Your task to perform on an android device: What's the weather today? Image 0: 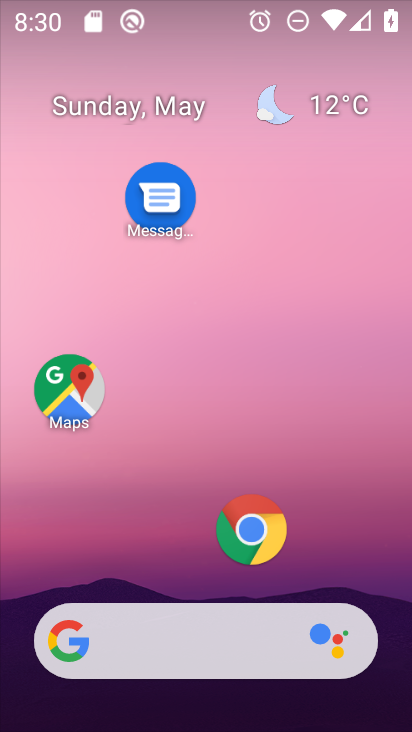
Step 0: drag from (195, 586) to (256, 99)
Your task to perform on an android device: What's the weather today? Image 1: 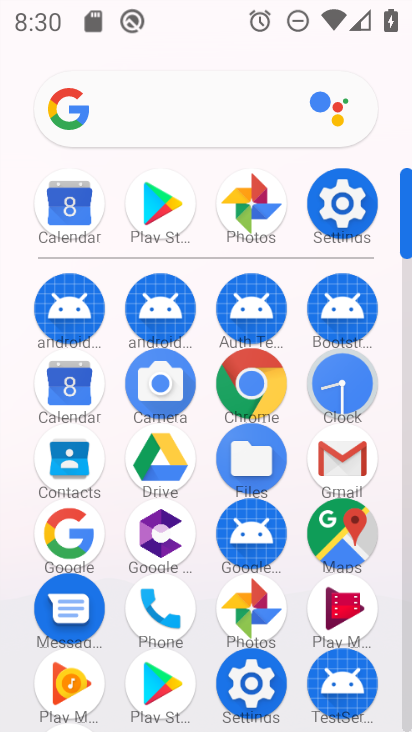
Step 1: press home button
Your task to perform on an android device: What's the weather today? Image 2: 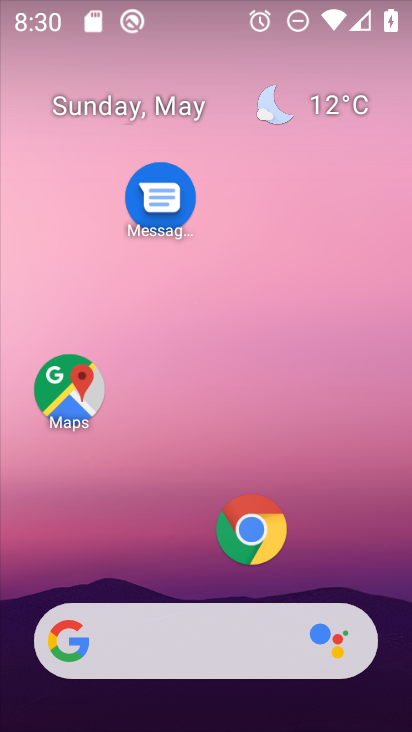
Step 2: click (314, 103)
Your task to perform on an android device: What's the weather today? Image 3: 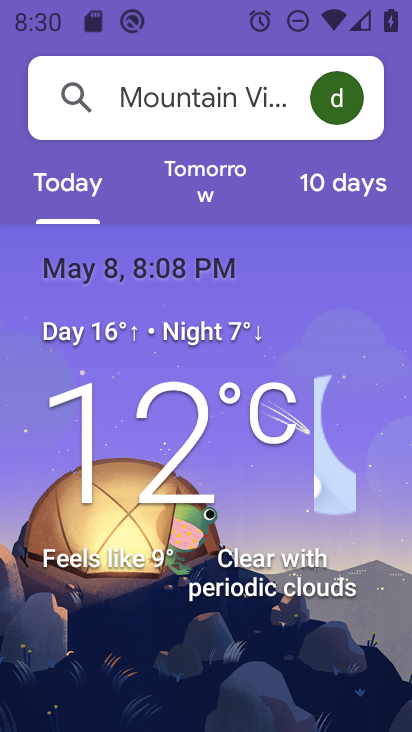
Step 3: task complete